Your task to perform on an android device: delete location history Image 0: 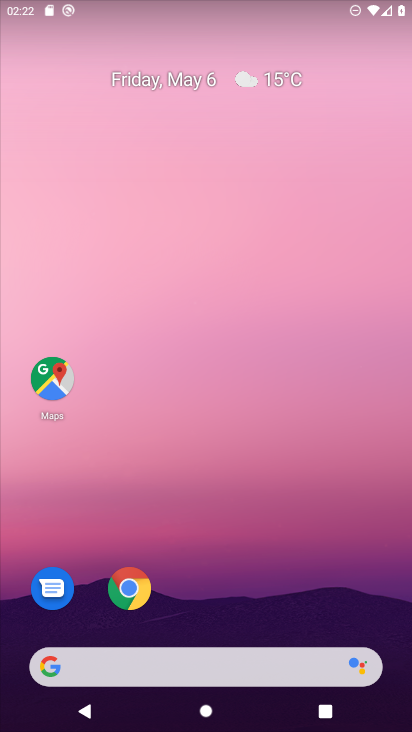
Step 0: drag from (217, 639) to (123, 1)
Your task to perform on an android device: delete location history Image 1: 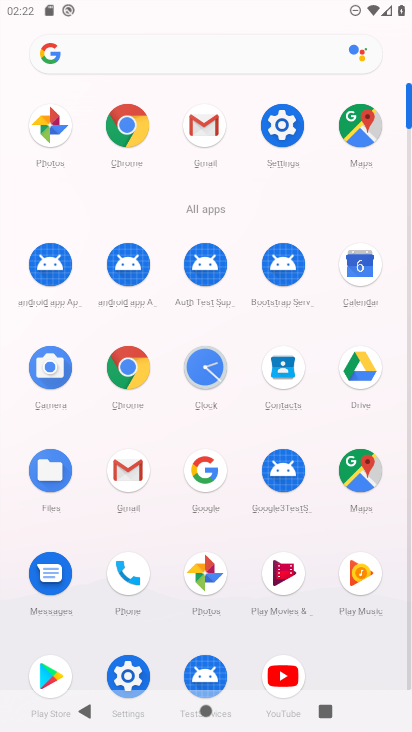
Step 1: click (357, 130)
Your task to perform on an android device: delete location history Image 2: 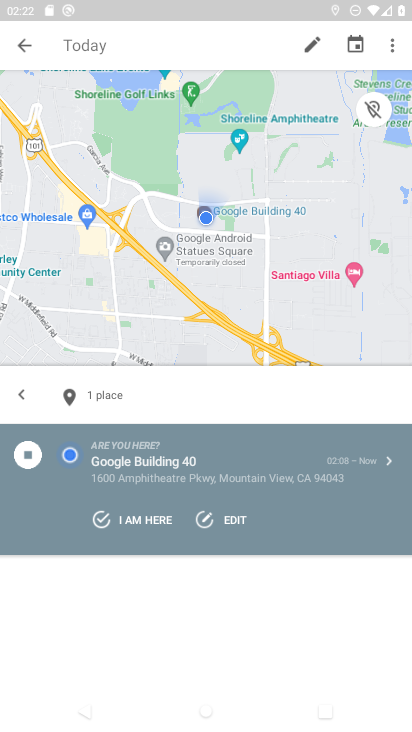
Step 2: click (24, 46)
Your task to perform on an android device: delete location history Image 3: 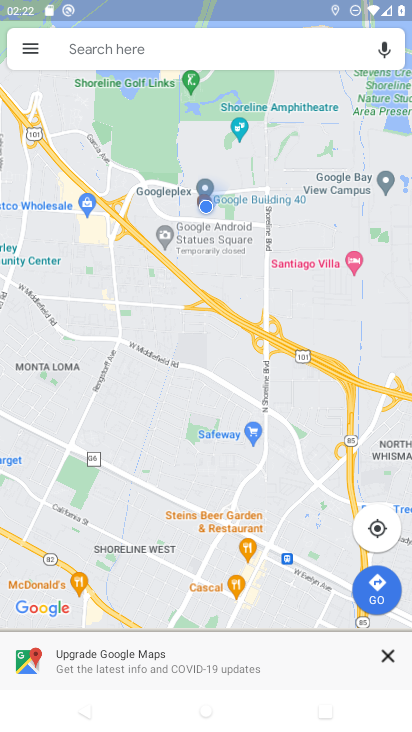
Step 3: click (24, 46)
Your task to perform on an android device: delete location history Image 4: 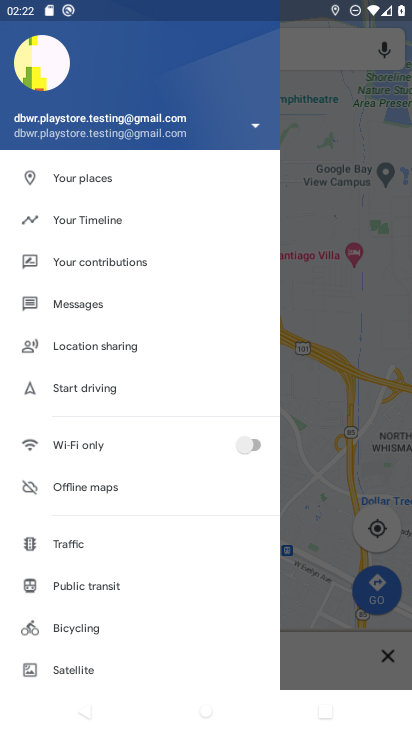
Step 4: click (93, 209)
Your task to perform on an android device: delete location history Image 5: 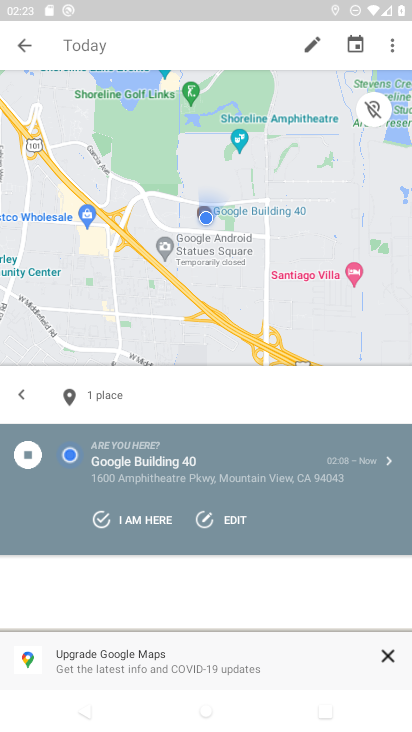
Step 5: click (395, 48)
Your task to perform on an android device: delete location history Image 6: 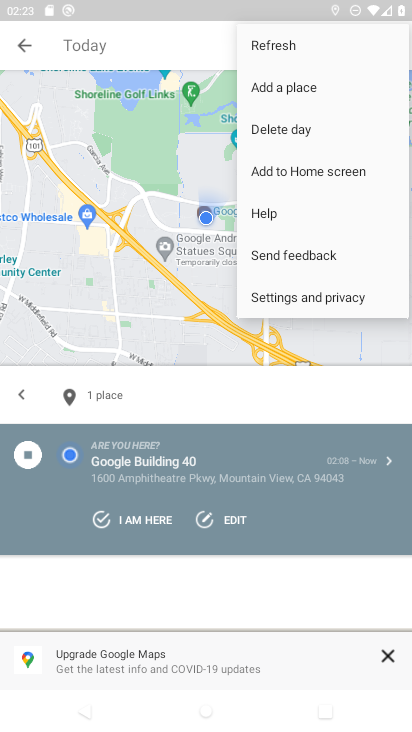
Step 6: click (307, 294)
Your task to perform on an android device: delete location history Image 7: 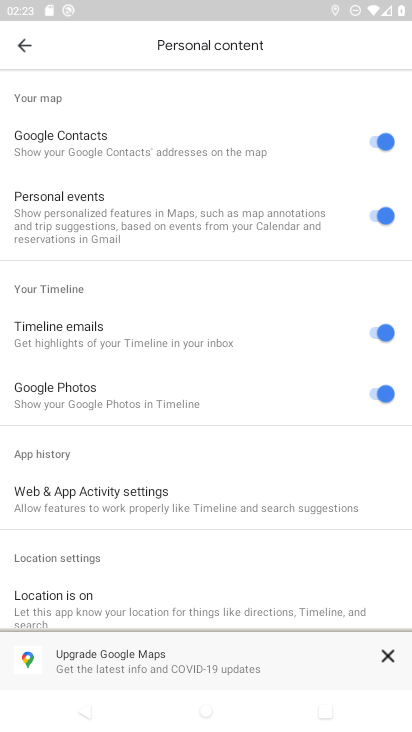
Step 7: drag from (281, 512) to (232, 95)
Your task to perform on an android device: delete location history Image 8: 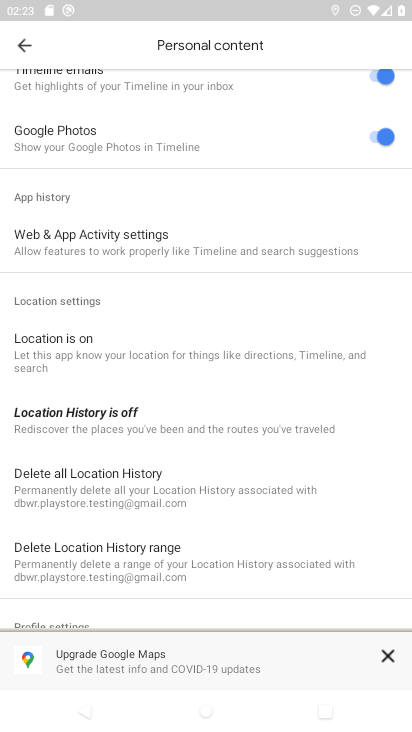
Step 8: click (110, 495)
Your task to perform on an android device: delete location history Image 9: 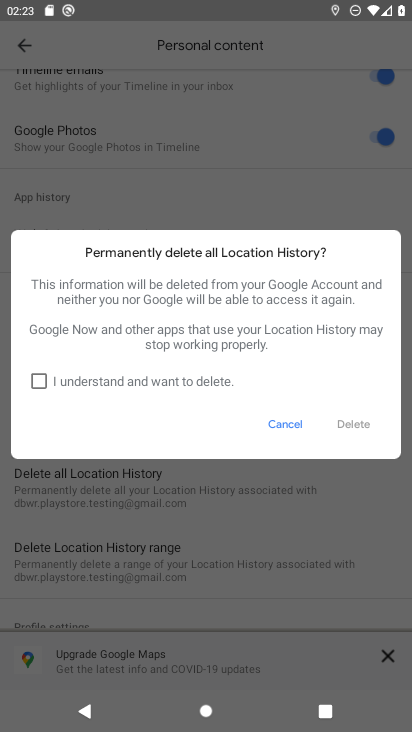
Step 9: click (38, 383)
Your task to perform on an android device: delete location history Image 10: 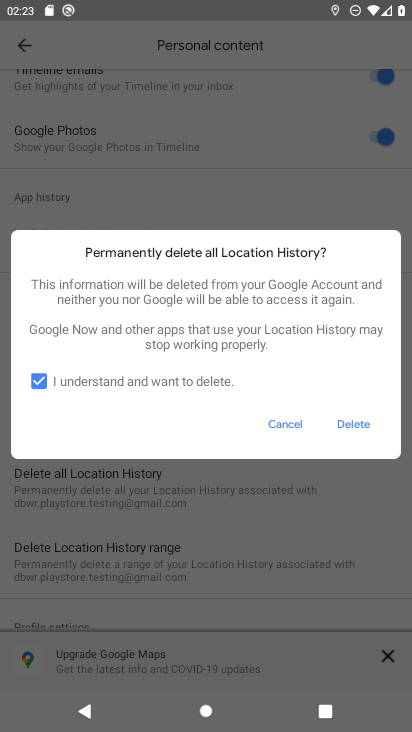
Step 10: click (347, 426)
Your task to perform on an android device: delete location history Image 11: 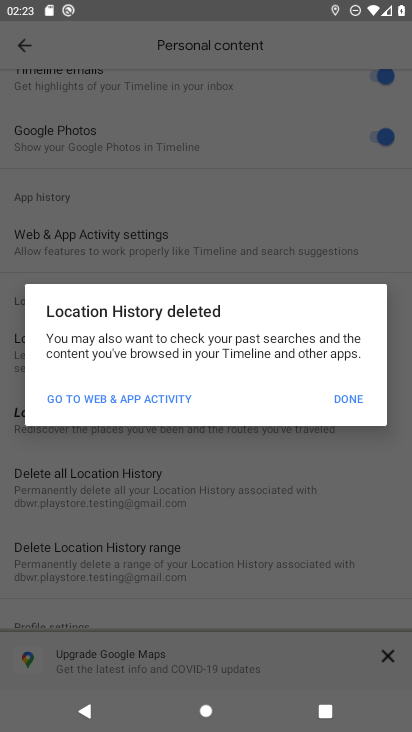
Step 11: click (345, 392)
Your task to perform on an android device: delete location history Image 12: 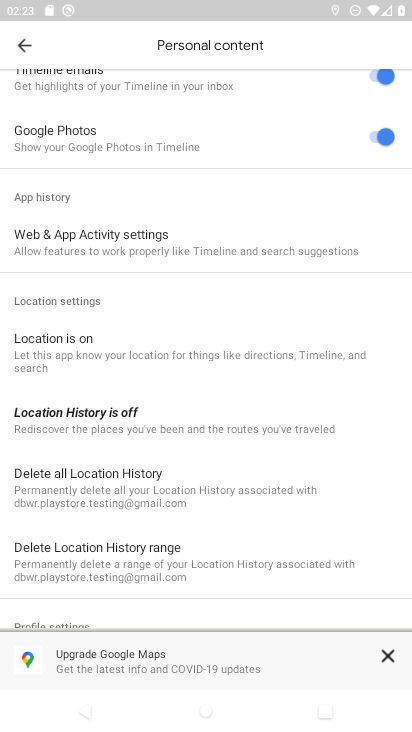
Step 12: task complete